Your task to perform on an android device: turn off improve location accuracy Image 0: 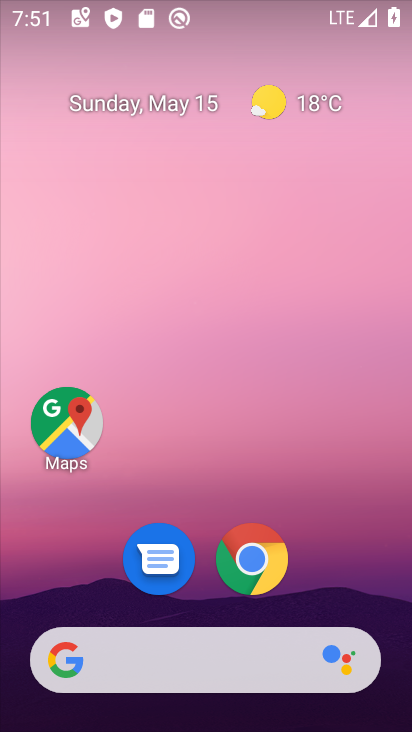
Step 0: drag from (269, 476) to (177, 77)
Your task to perform on an android device: turn off improve location accuracy Image 1: 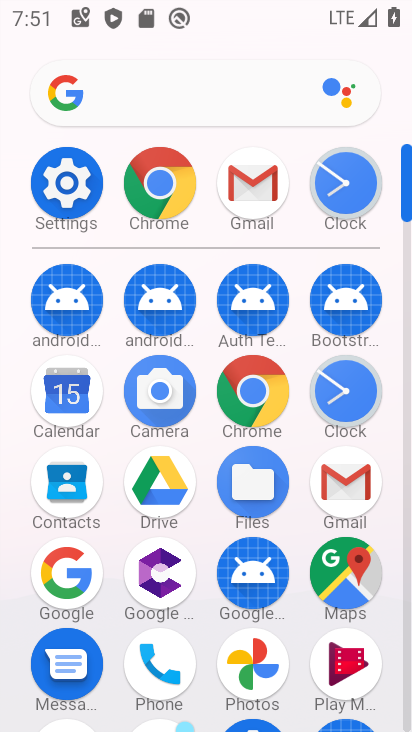
Step 1: click (66, 185)
Your task to perform on an android device: turn off improve location accuracy Image 2: 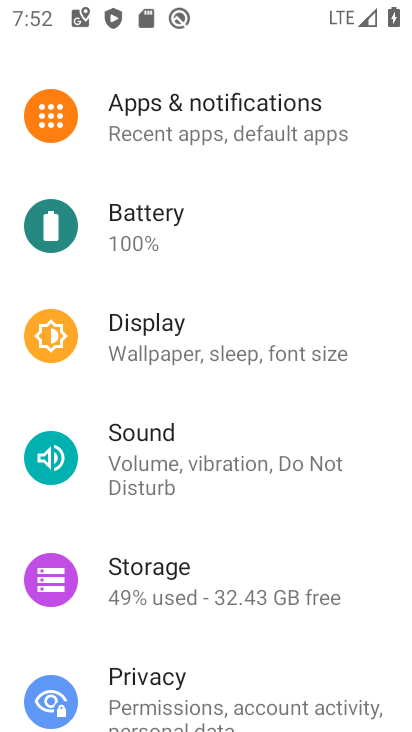
Step 2: drag from (240, 529) to (202, 233)
Your task to perform on an android device: turn off improve location accuracy Image 3: 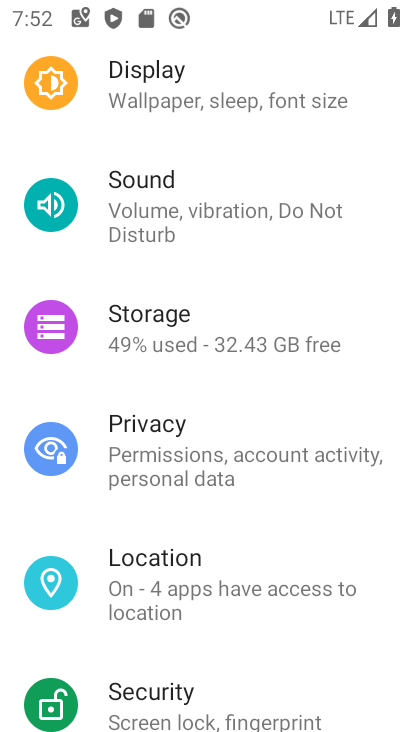
Step 3: click (154, 564)
Your task to perform on an android device: turn off improve location accuracy Image 4: 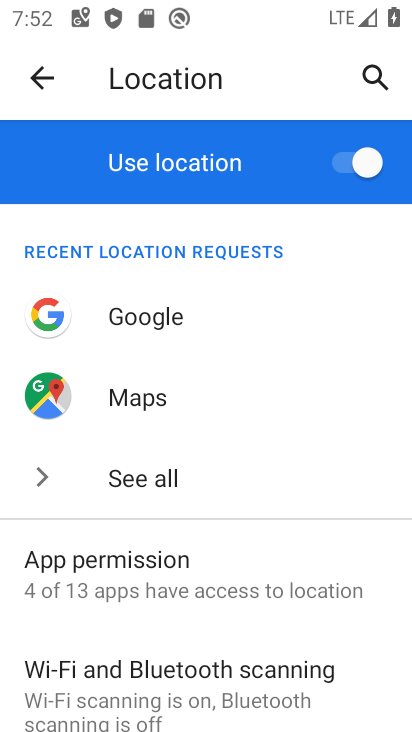
Step 4: drag from (255, 548) to (187, 270)
Your task to perform on an android device: turn off improve location accuracy Image 5: 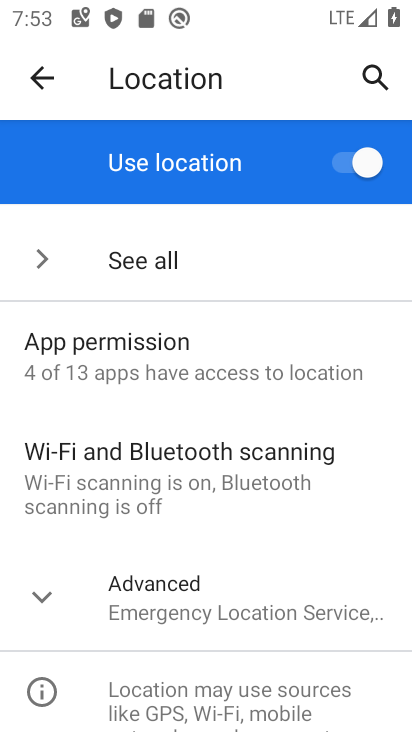
Step 5: drag from (229, 552) to (166, 271)
Your task to perform on an android device: turn off improve location accuracy Image 6: 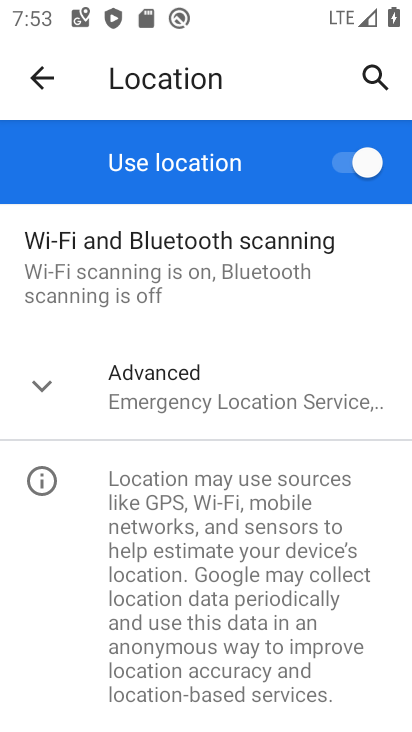
Step 6: click (126, 389)
Your task to perform on an android device: turn off improve location accuracy Image 7: 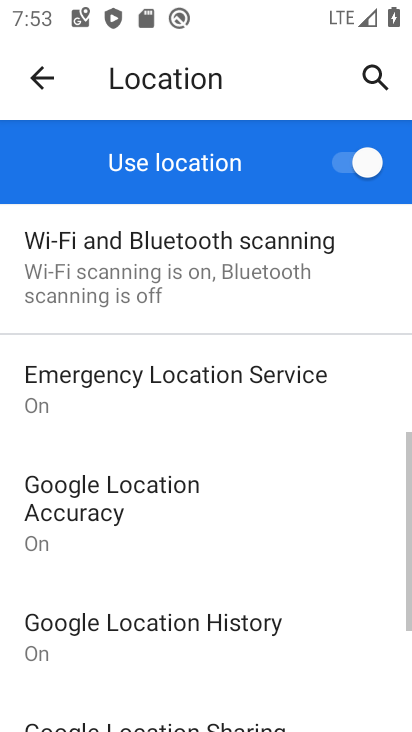
Step 7: drag from (252, 548) to (215, 326)
Your task to perform on an android device: turn off improve location accuracy Image 8: 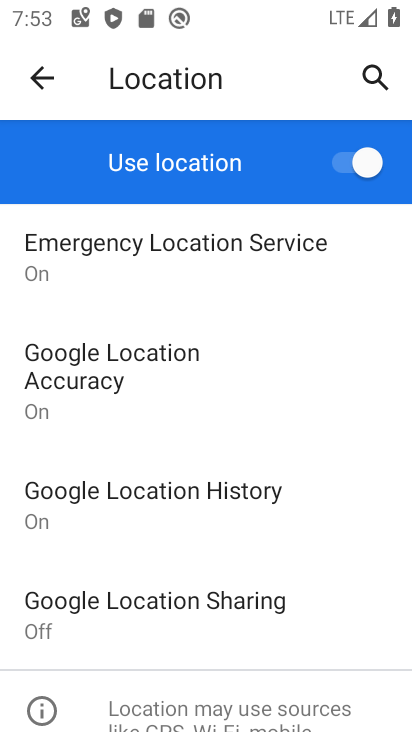
Step 8: click (86, 368)
Your task to perform on an android device: turn off improve location accuracy Image 9: 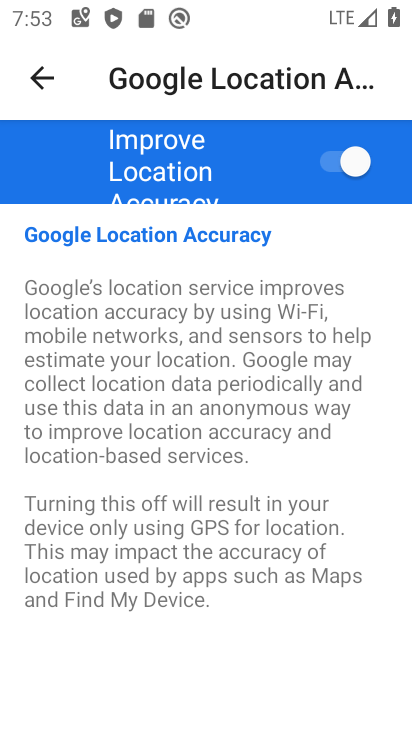
Step 9: click (350, 156)
Your task to perform on an android device: turn off improve location accuracy Image 10: 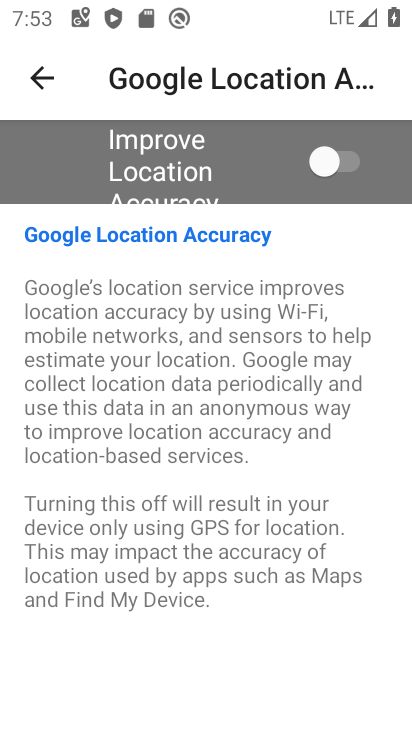
Step 10: task complete